Your task to perform on an android device: Open calendar and show me the second week of next month Image 0: 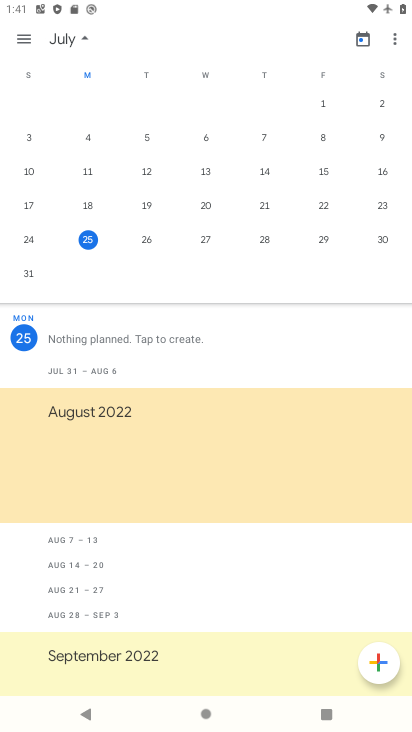
Step 0: press home button
Your task to perform on an android device: Open calendar and show me the second week of next month Image 1: 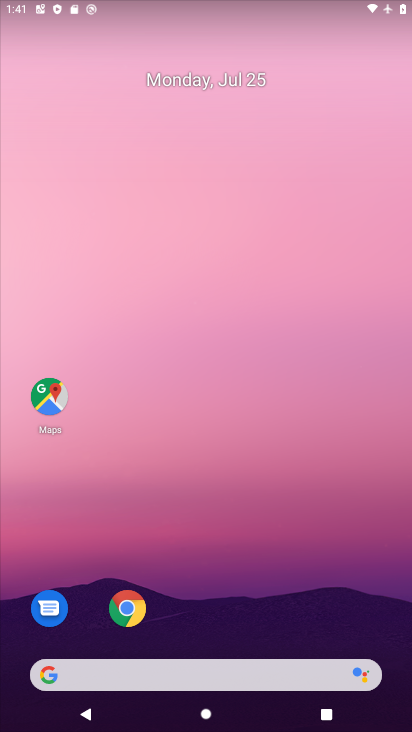
Step 1: drag from (216, 587) to (202, 135)
Your task to perform on an android device: Open calendar and show me the second week of next month Image 2: 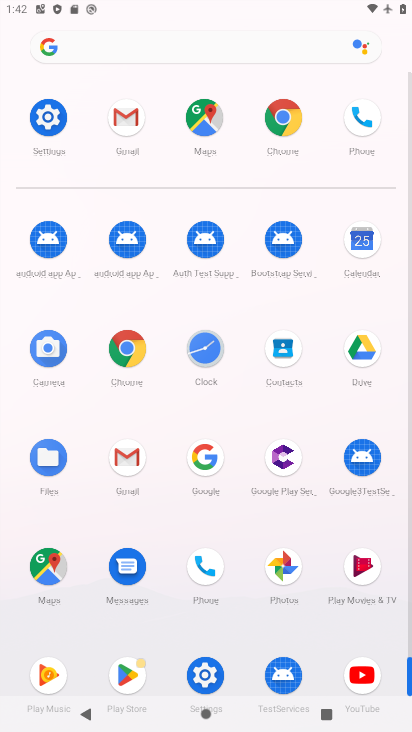
Step 2: click (369, 259)
Your task to perform on an android device: Open calendar and show me the second week of next month Image 3: 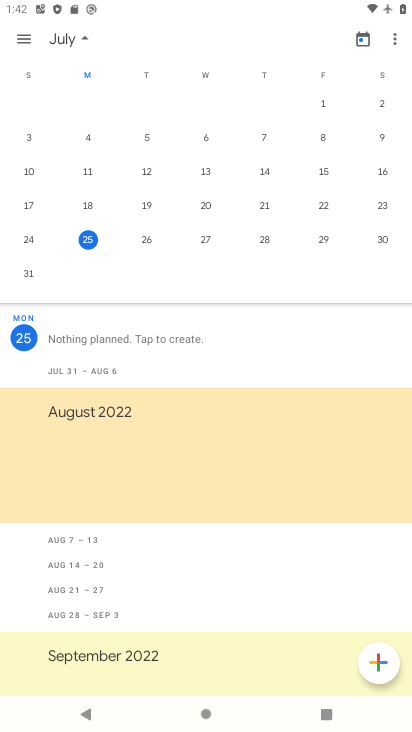
Step 3: press home button
Your task to perform on an android device: Open calendar and show me the second week of next month Image 4: 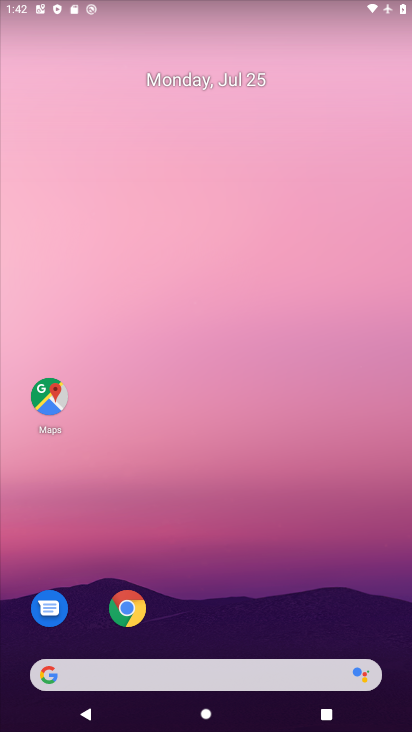
Step 4: drag from (242, 626) to (382, 85)
Your task to perform on an android device: Open calendar and show me the second week of next month Image 5: 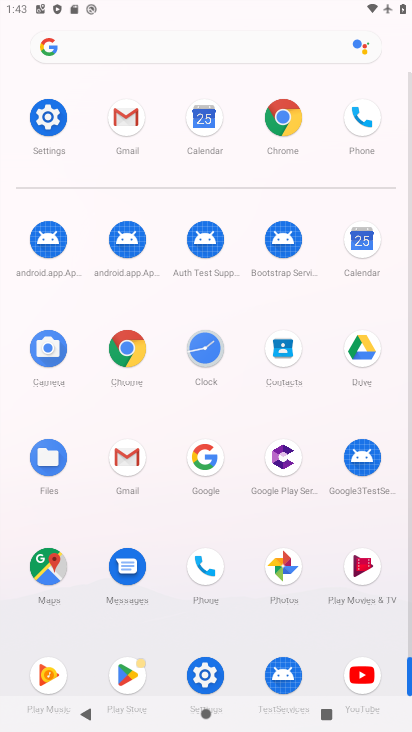
Step 5: click (362, 258)
Your task to perform on an android device: Open calendar and show me the second week of next month Image 6: 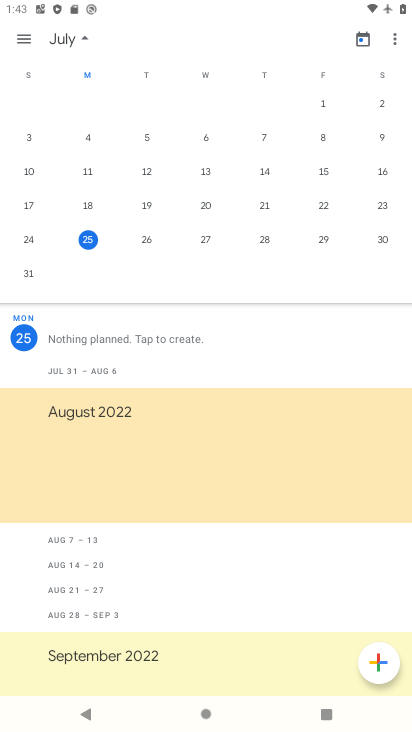
Step 6: drag from (339, 207) to (0, 216)
Your task to perform on an android device: Open calendar and show me the second week of next month Image 7: 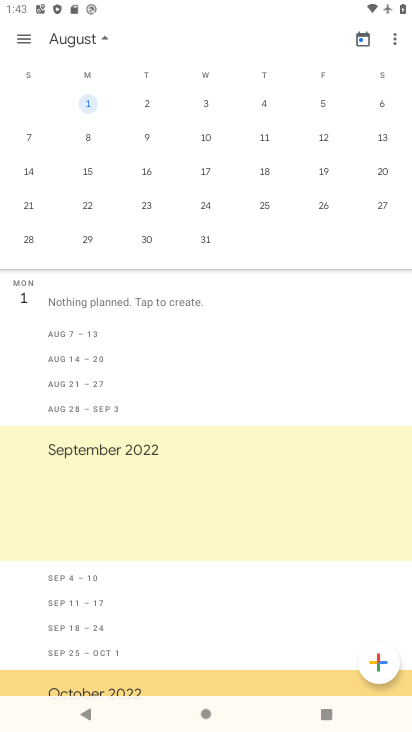
Step 7: click (15, 141)
Your task to perform on an android device: Open calendar and show me the second week of next month Image 8: 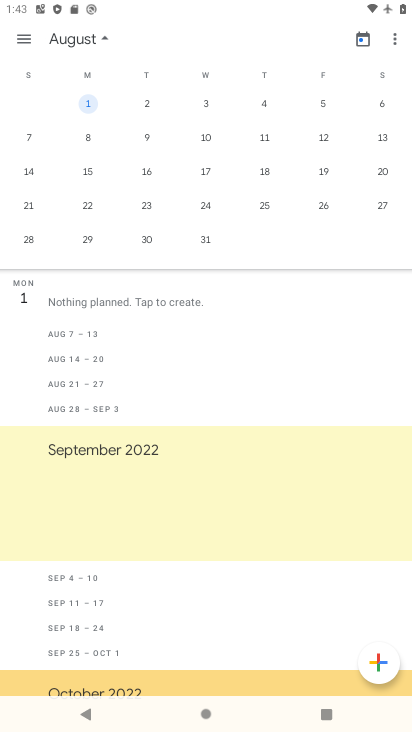
Step 8: click (28, 142)
Your task to perform on an android device: Open calendar and show me the second week of next month Image 9: 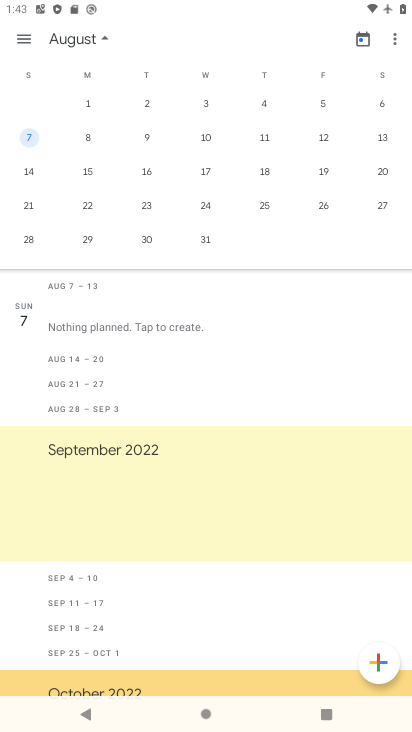
Step 9: task complete